Your task to perform on an android device: install app "Move to iOS" Image 0: 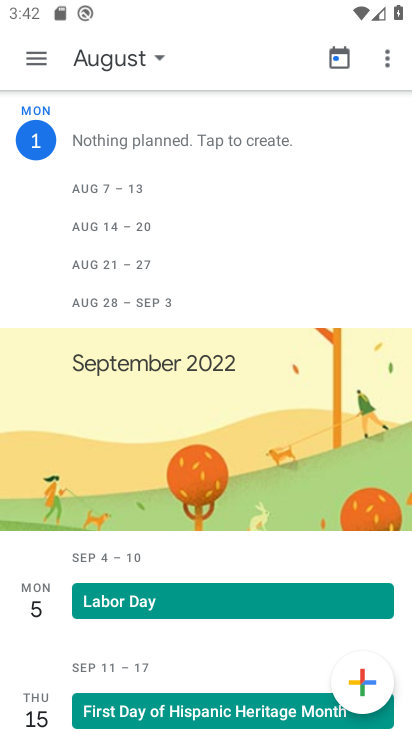
Step 0: press home button
Your task to perform on an android device: install app "Move to iOS" Image 1: 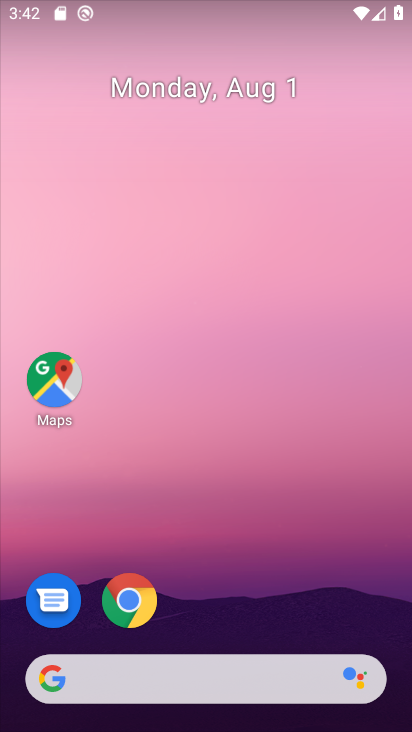
Step 1: drag from (246, 581) to (162, 135)
Your task to perform on an android device: install app "Move to iOS" Image 2: 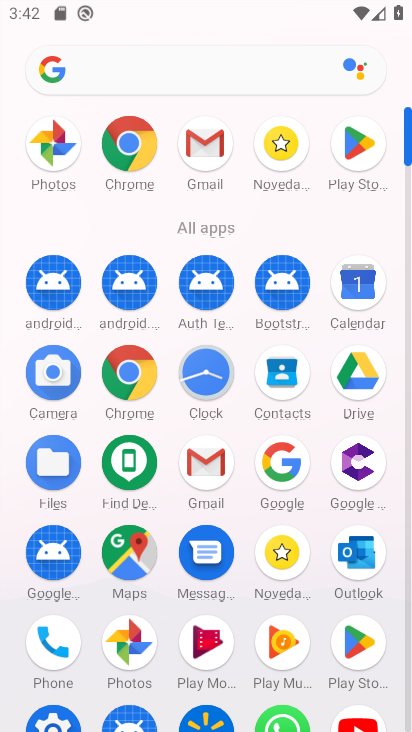
Step 2: click (364, 149)
Your task to perform on an android device: install app "Move to iOS" Image 3: 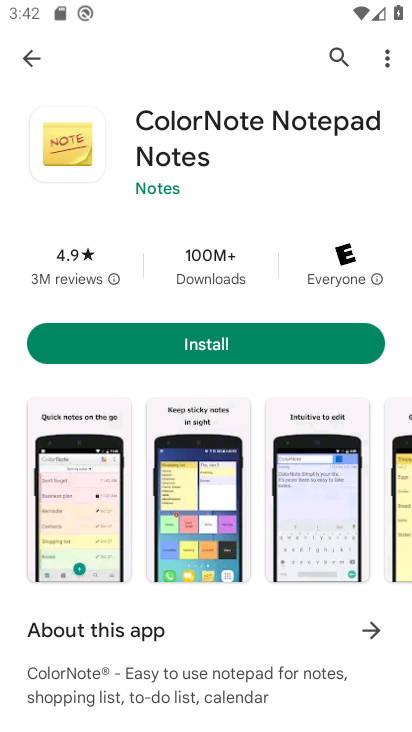
Step 3: click (345, 56)
Your task to perform on an android device: install app "Move to iOS" Image 4: 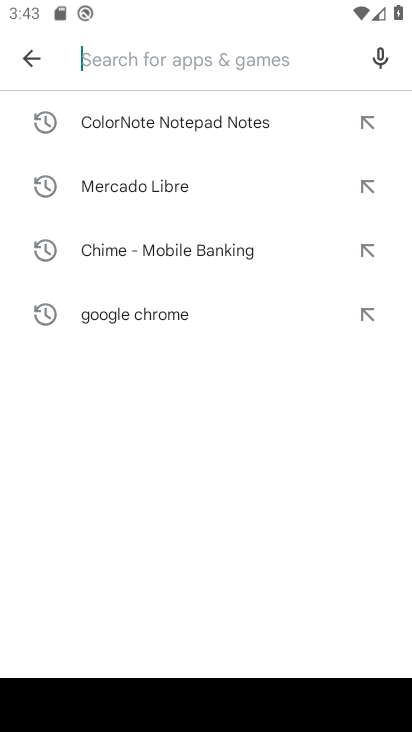
Step 4: type "Move to iOS"
Your task to perform on an android device: install app "Move to iOS" Image 5: 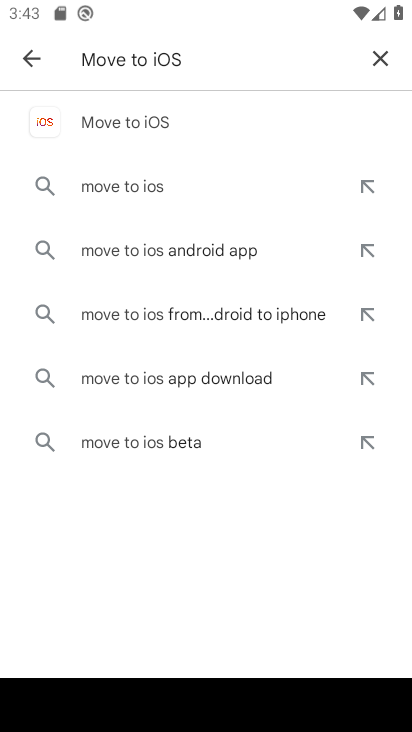
Step 5: click (152, 113)
Your task to perform on an android device: install app "Move to iOS" Image 6: 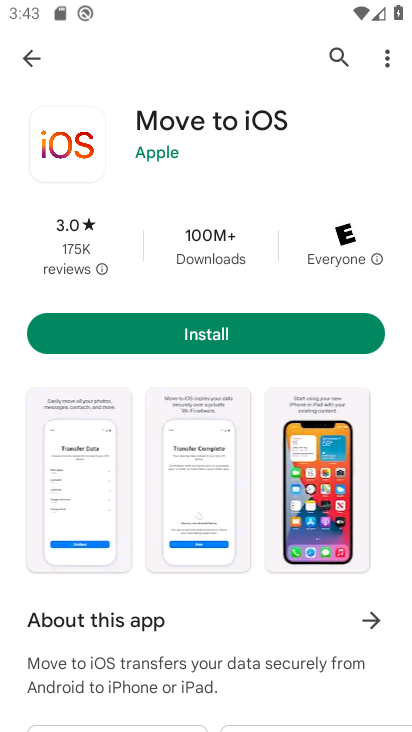
Step 6: click (289, 340)
Your task to perform on an android device: install app "Move to iOS" Image 7: 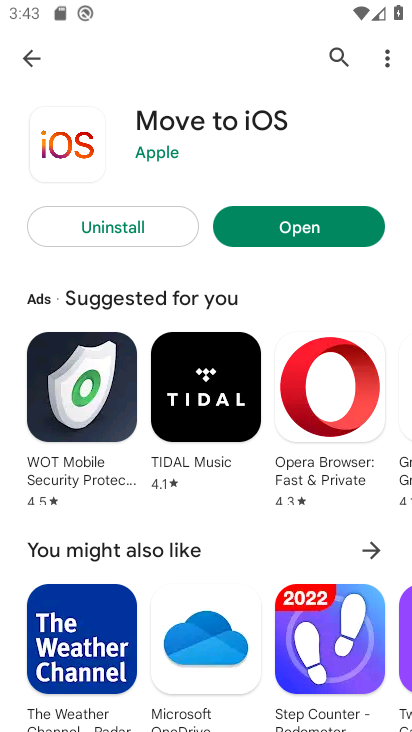
Step 7: task complete